Your task to perform on an android device: open a new tab in the chrome app Image 0: 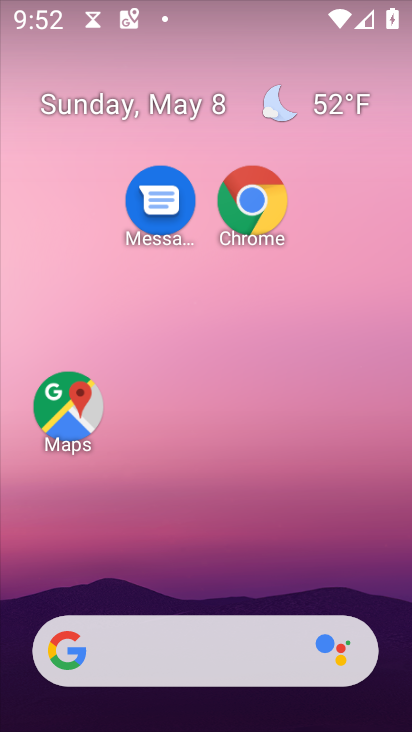
Step 0: click (246, 215)
Your task to perform on an android device: open a new tab in the chrome app Image 1: 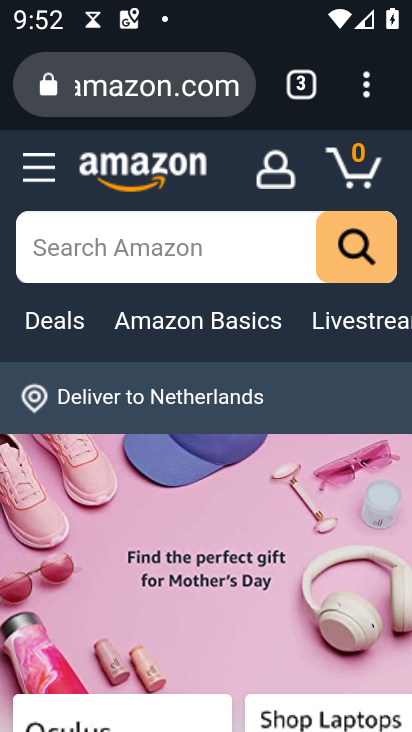
Step 1: click (291, 96)
Your task to perform on an android device: open a new tab in the chrome app Image 2: 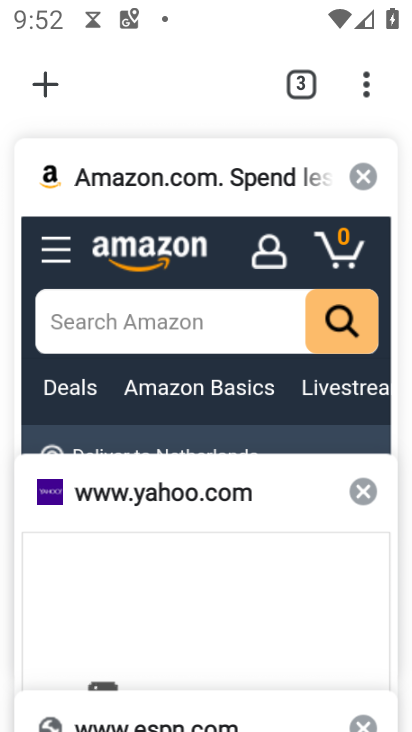
Step 2: click (46, 80)
Your task to perform on an android device: open a new tab in the chrome app Image 3: 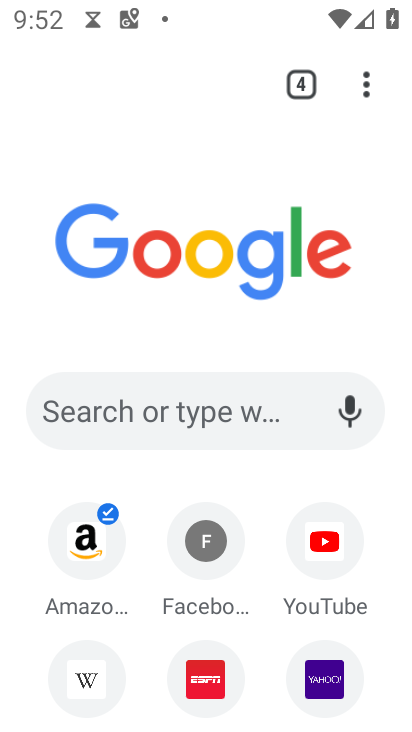
Step 3: task complete